Your task to perform on an android device: turn off notifications settings in the gmail app Image 0: 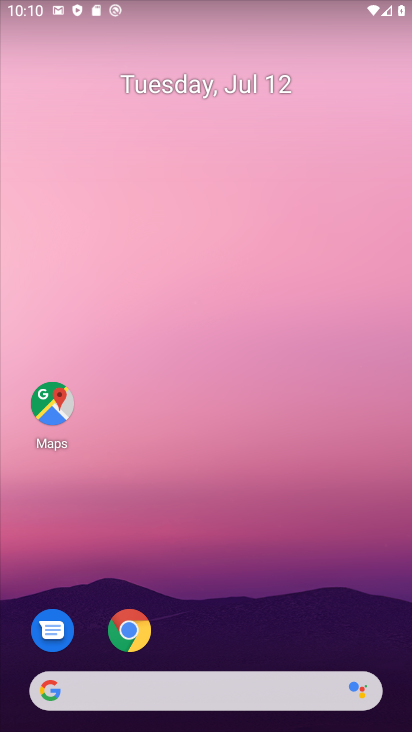
Step 0: drag from (368, 617) to (360, 77)
Your task to perform on an android device: turn off notifications settings in the gmail app Image 1: 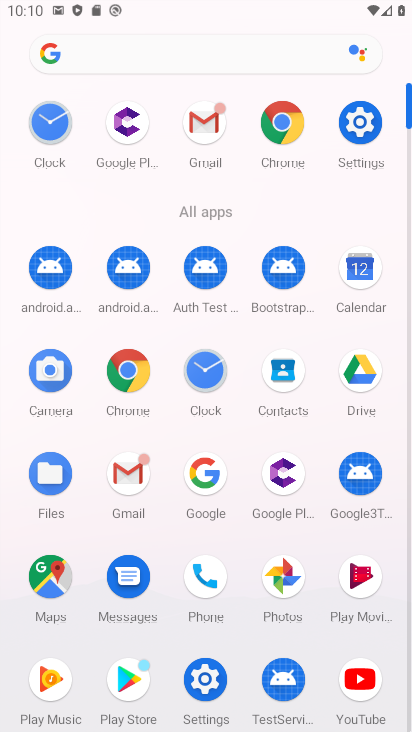
Step 1: click (131, 465)
Your task to perform on an android device: turn off notifications settings in the gmail app Image 2: 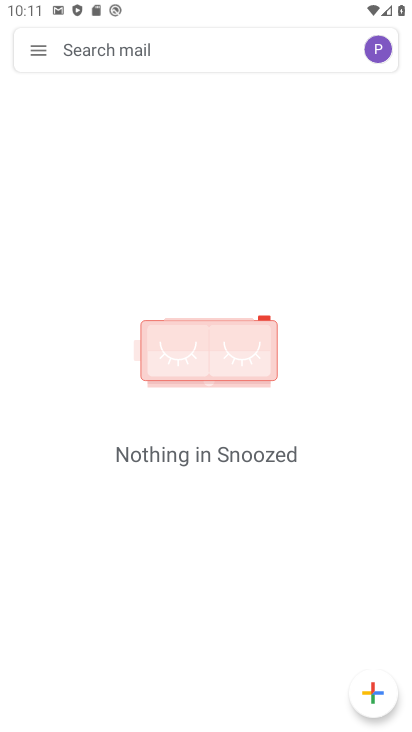
Step 2: click (43, 47)
Your task to perform on an android device: turn off notifications settings in the gmail app Image 3: 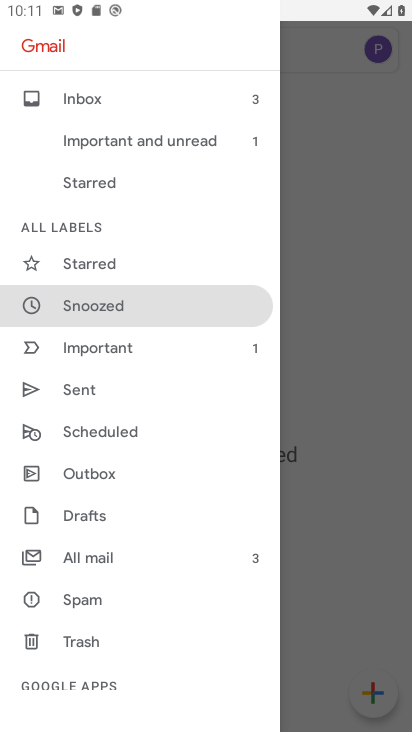
Step 3: drag from (204, 433) to (209, 333)
Your task to perform on an android device: turn off notifications settings in the gmail app Image 4: 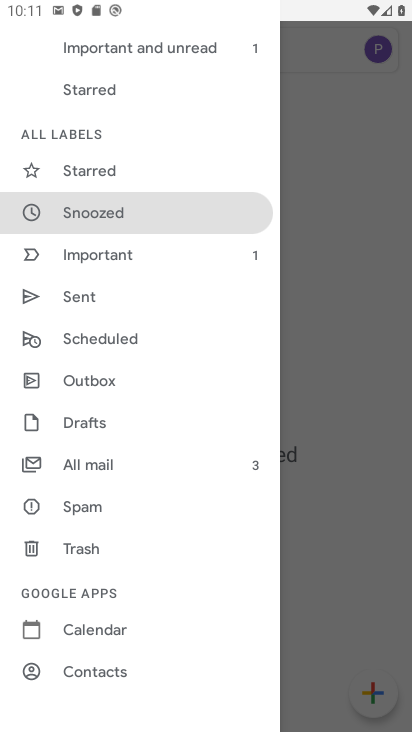
Step 4: drag from (204, 399) to (202, 286)
Your task to perform on an android device: turn off notifications settings in the gmail app Image 5: 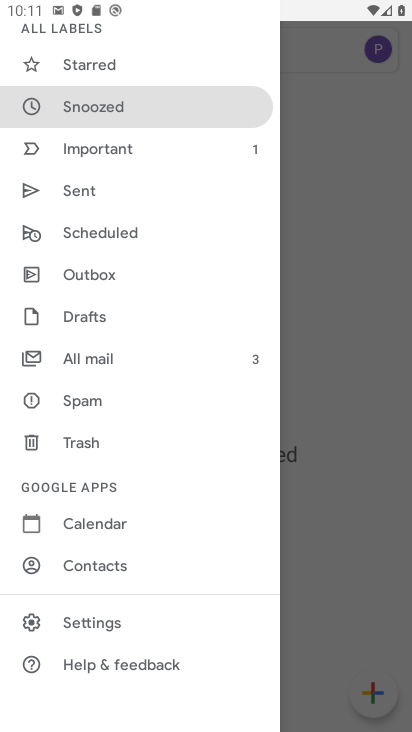
Step 5: drag from (205, 427) to (192, 316)
Your task to perform on an android device: turn off notifications settings in the gmail app Image 6: 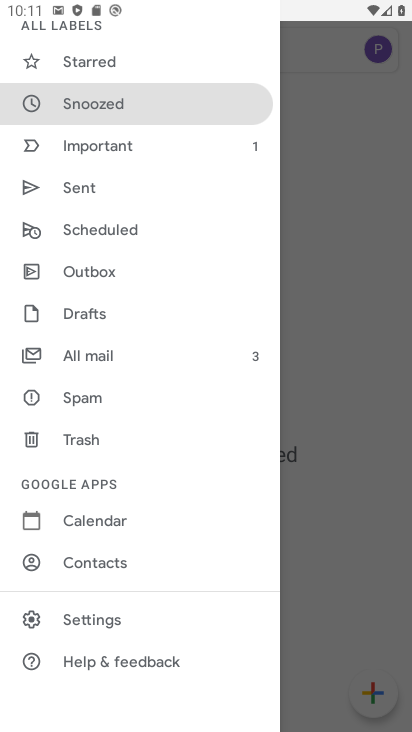
Step 6: click (152, 623)
Your task to perform on an android device: turn off notifications settings in the gmail app Image 7: 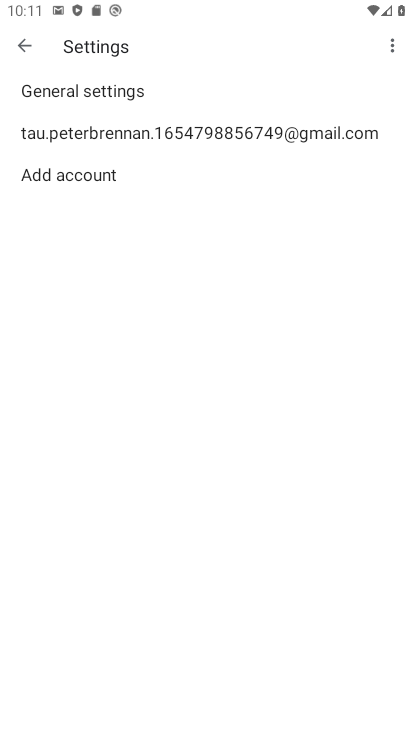
Step 7: click (244, 123)
Your task to perform on an android device: turn off notifications settings in the gmail app Image 8: 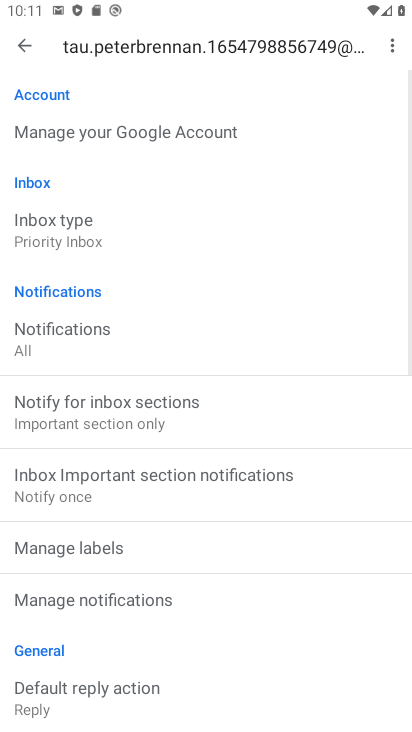
Step 8: drag from (300, 321) to (301, 209)
Your task to perform on an android device: turn off notifications settings in the gmail app Image 9: 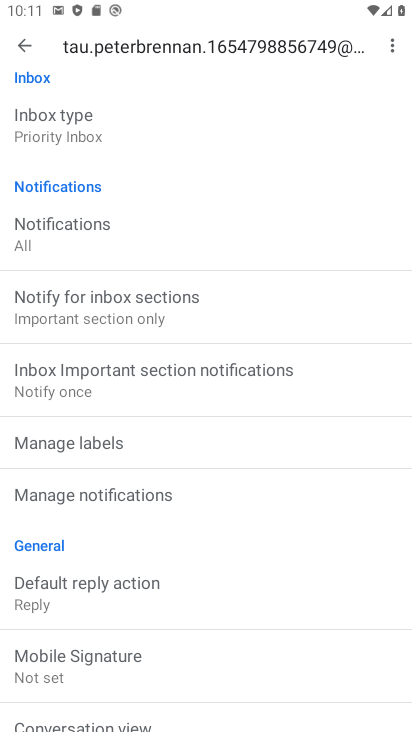
Step 9: drag from (336, 374) to (338, 269)
Your task to perform on an android device: turn off notifications settings in the gmail app Image 10: 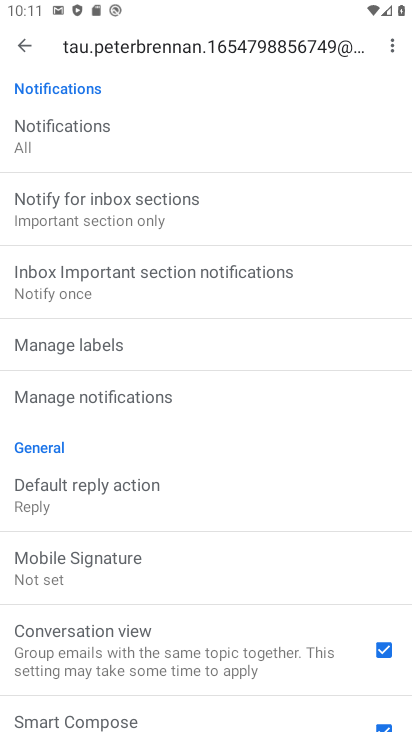
Step 10: drag from (338, 418) to (327, 302)
Your task to perform on an android device: turn off notifications settings in the gmail app Image 11: 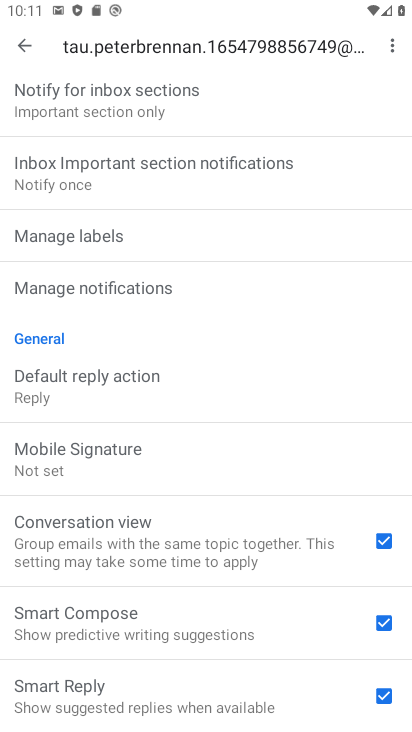
Step 11: drag from (310, 443) to (310, 314)
Your task to perform on an android device: turn off notifications settings in the gmail app Image 12: 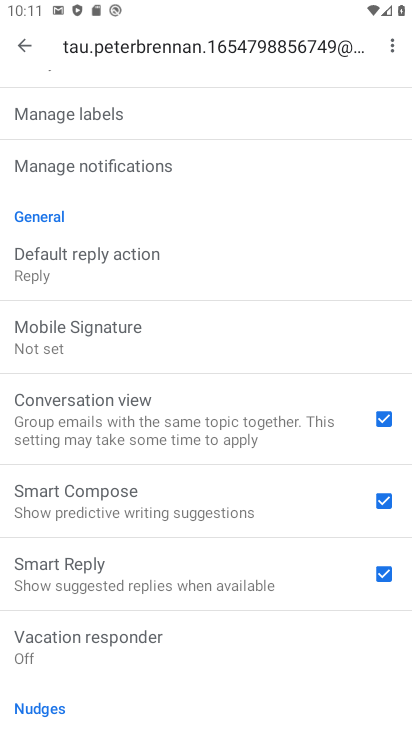
Step 12: drag from (311, 460) to (313, 331)
Your task to perform on an android device: turn off notifications settings in the gmail app Image 13: 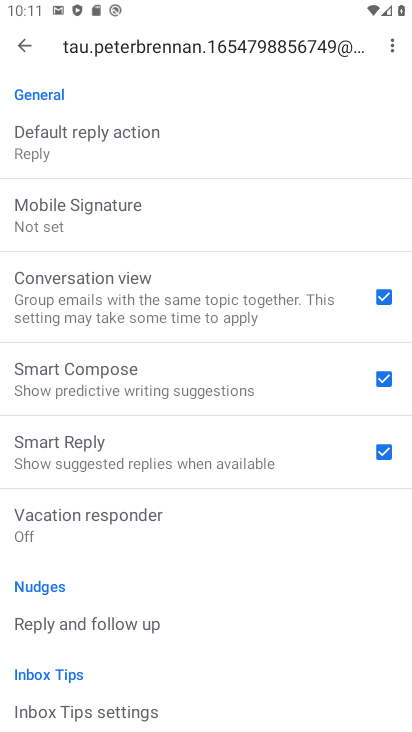
Step 13: drag from (319, 498) to (320, 375)
Your task to perform on an android device: turn off notifications settings in the gmail app Image 14: 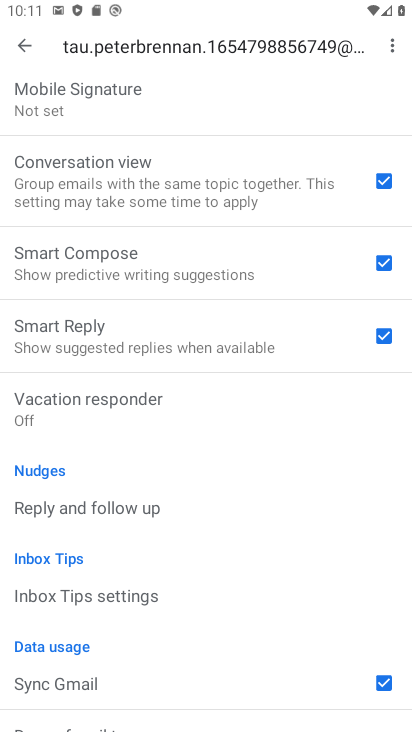
Step 14: drag from (323, 476) to (302, 252)
Your task to perform on an android device: turn off notifications settings in the gmail app Image 15: 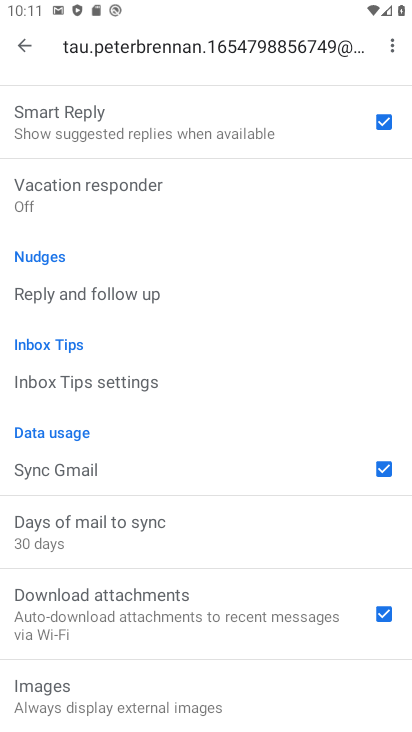
Step 15: drag from (291, 222) to (290, 353)
Your task to perform on an android device: turn off notifications settings in the gmail app Image 16: 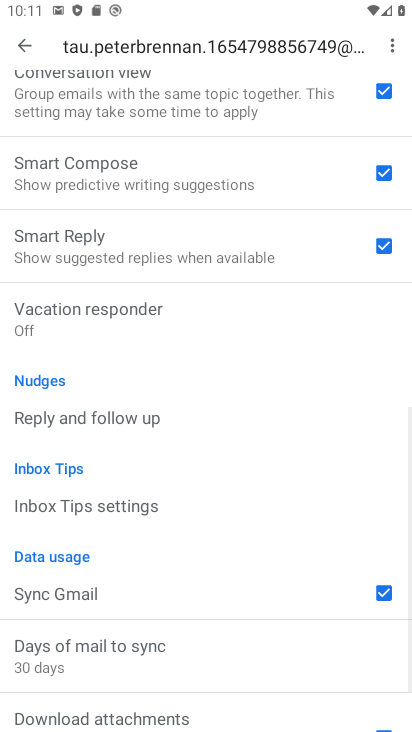
Step 16: drag from (283, 225) to (292, 350)
Your task to perform on an android device: turn off notifications settings in the gmail app Image 17: 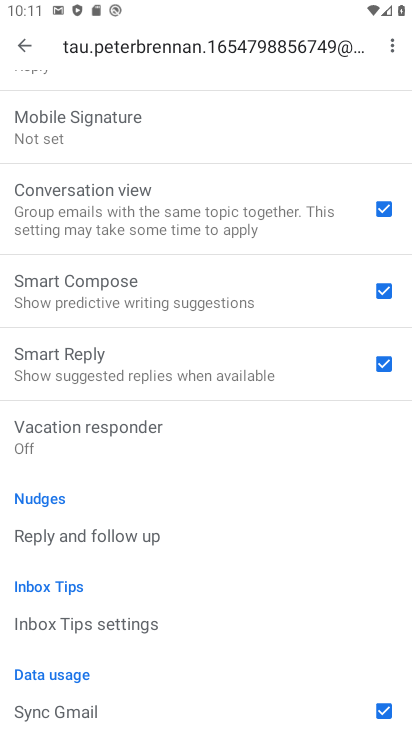
Step 17: drag from (288, 187) to (284, 324)
Your task to perform on an android device: turn off notifications settings in the gmail app Image 18: 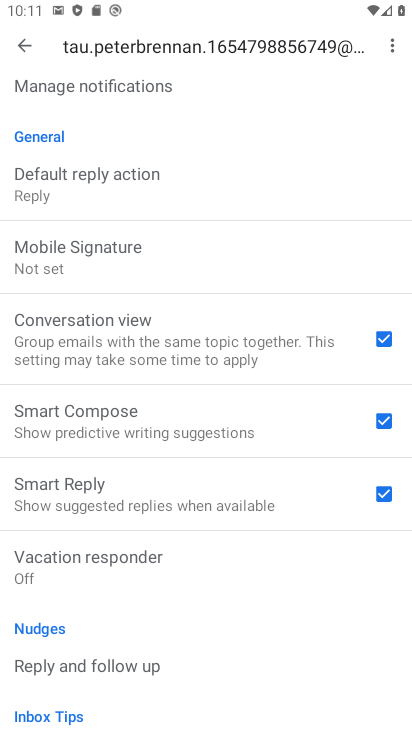
Step 18: drag from (280, 185) to (276, 343)
Your task to perform on an android device: turn off notifications settings in the gmail app Image 19: 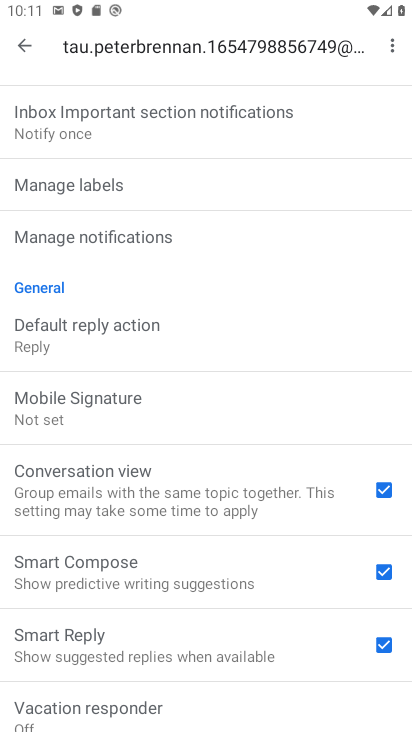
Step 19: drag from (274, 156) to (281, 328)
Your task to perform on an android device: turn off notifications settings in the gmail app Image 20: 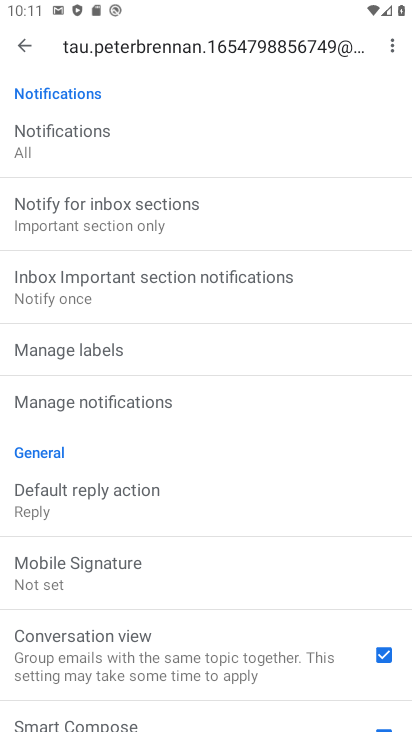
Step 20: click (211, 412)
Your task to perform on an android device: turn off notifications settings in the gmail app Image 21: 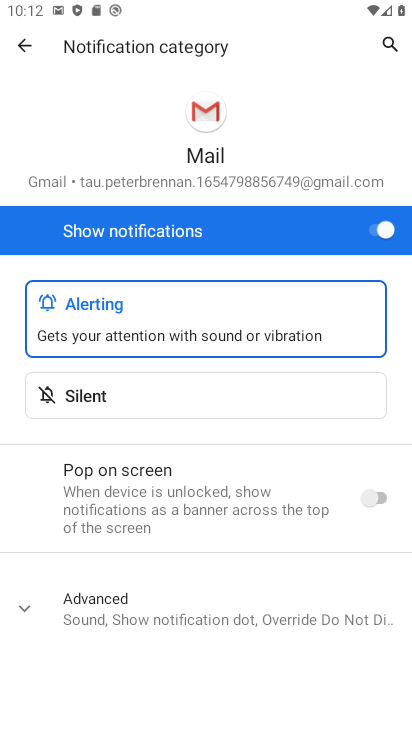
Step 21: click (387, 232)
Your task to perform on an android device: turn off notifications settings in the gmail app Image 22: 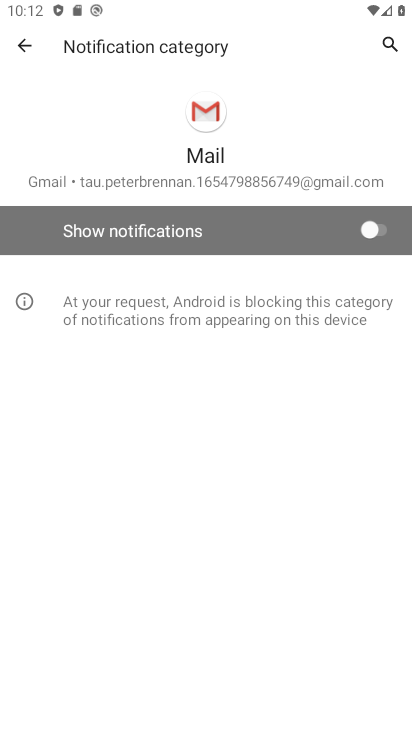
Step 22: task complete